Your task to perform on an android device: Go to Google maps Image 0: 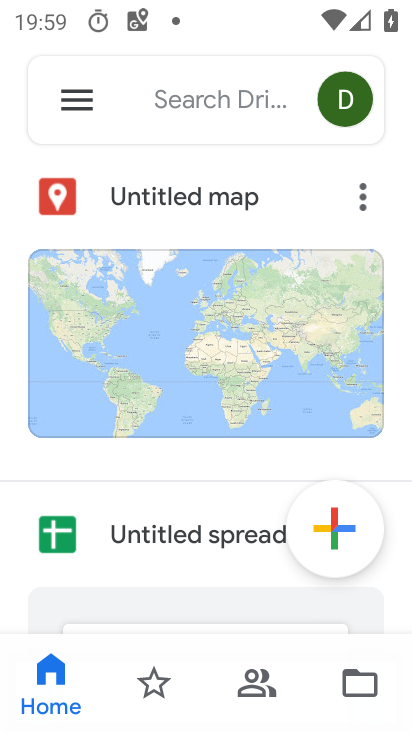
Step 0: press home button
Your task to perform on an android device: Go to Google maps Image 1: 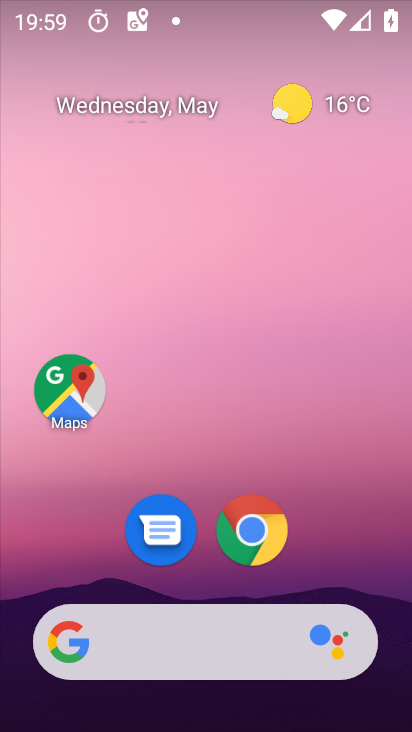
Step 1: click (59, 387)
Your task to perform on an android device: Go to Google maps Image 2: 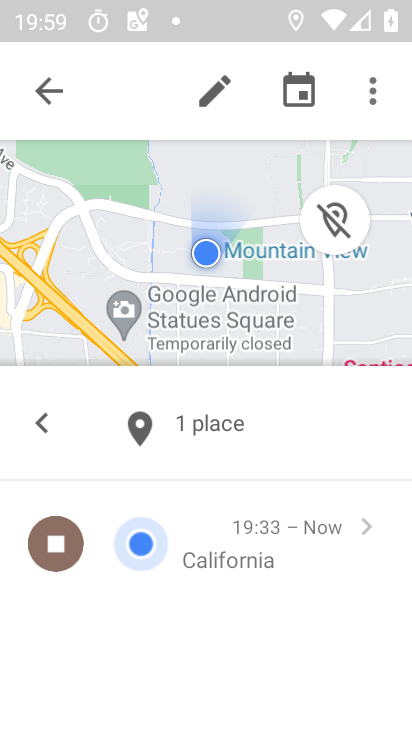
Step 2: task complete